Your task to perform on an android device: Go to display settings Image 0: 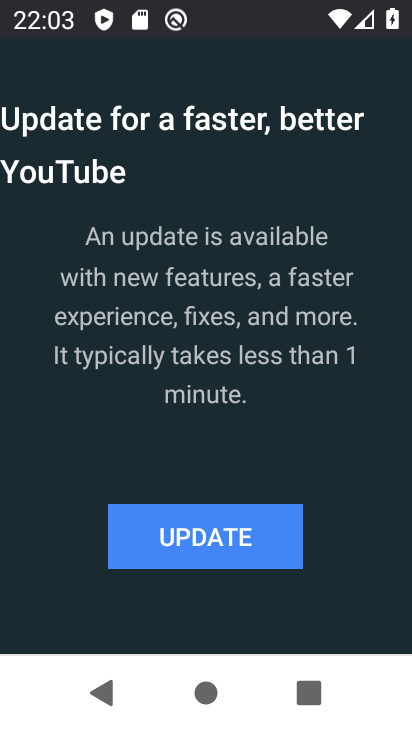
Step 0: press home button
Your task to perform on an android device: Go to display settings Image 1: 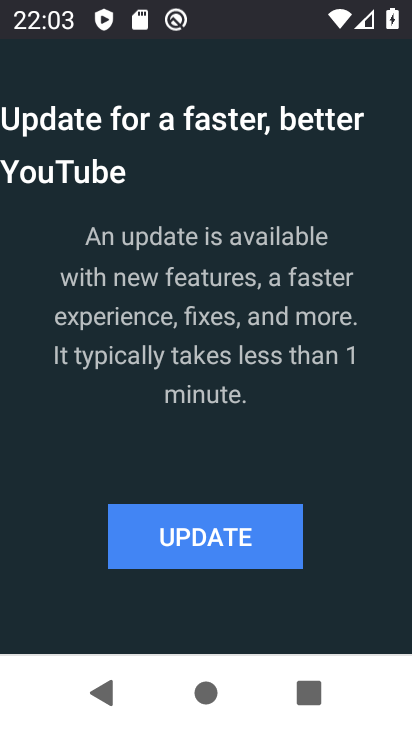
Step 1: press home button
Your task to perform on an android device: Go to display settings Image 2: 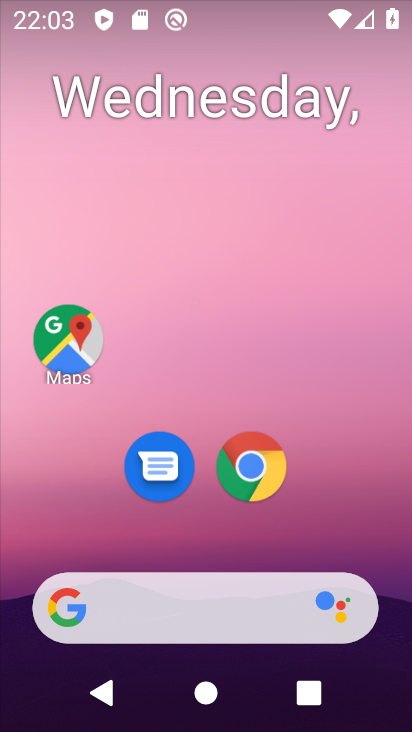
Step 2: drag from (206, 540) to (183, 35)
Your task to perform on an android device: Go to display settings Image 3: 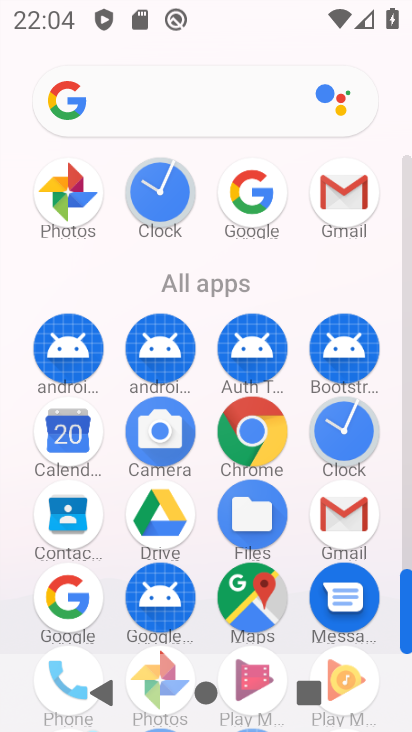
Step 3: drag from (205, 554) to (206, 121)
Your task to perform on an android device: Go to display settings Image 4: 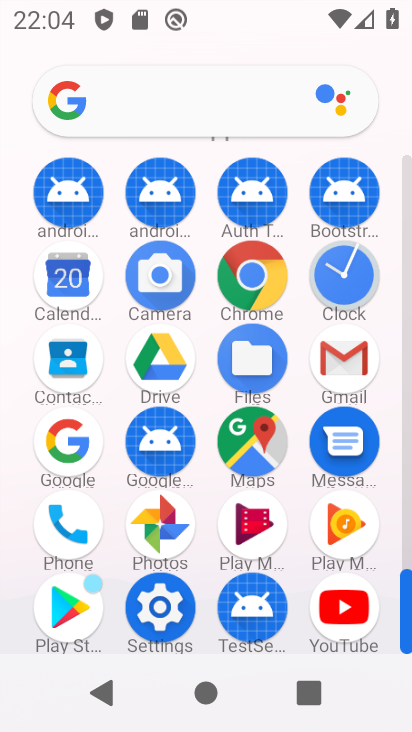
Step 4: click (158, 601)
Your task to perform on an android device: Go to display settings Image 5: 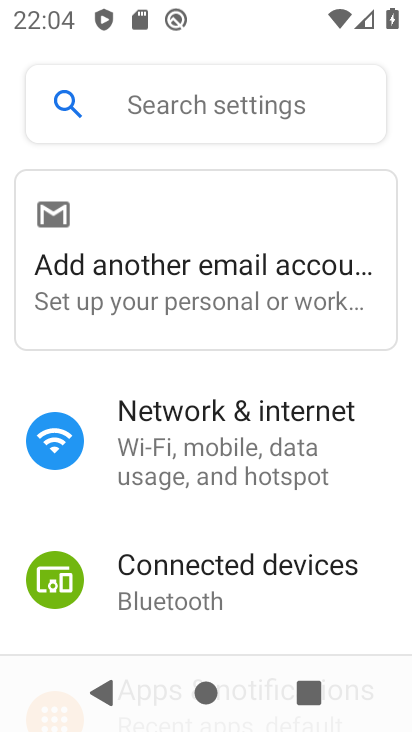
Step 5: drag from (252, 603) to (279, 106)
Your task to perform on an android device: Go to display settings Image 6: 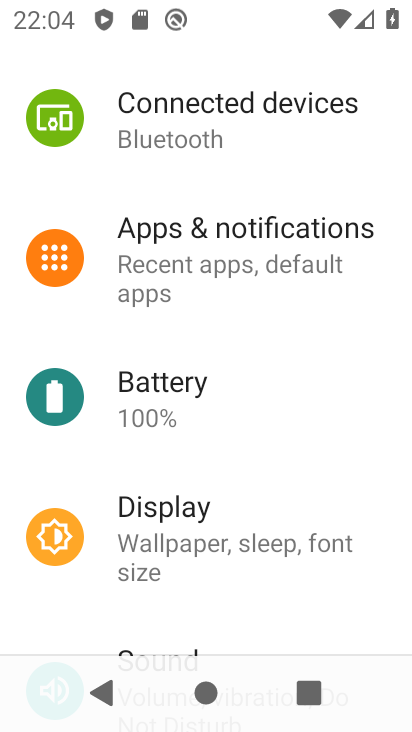
Step 6: click (232, 519)
Your task to perform on an android device: Go to display settings Image 7: 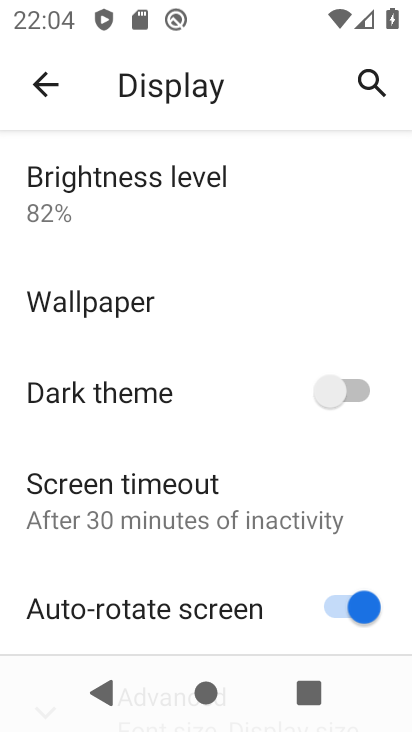
Step 7: drag from (203, 552) to (219, 236)
Your task to perform on an android device: Go to display settings Image 8: 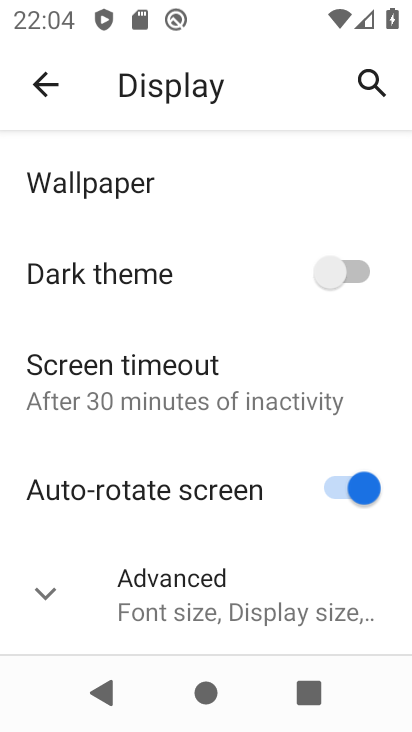
Step 8: click (41, 591)
Your task to perform on an android device: Go to display settings Image 9: 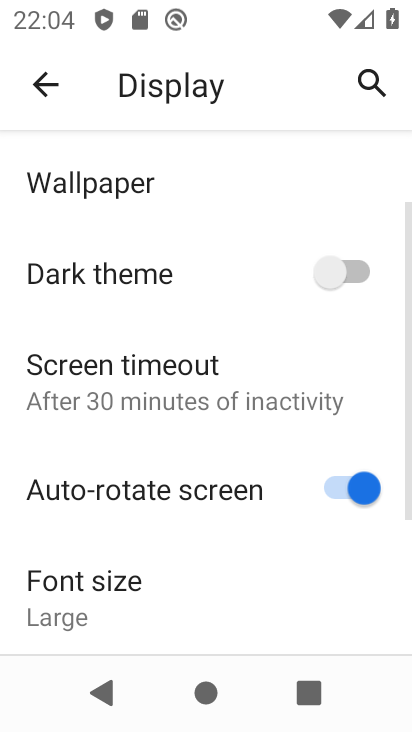
Step 9: task complete